Your task to perform on an android device: add a contact Image 0: 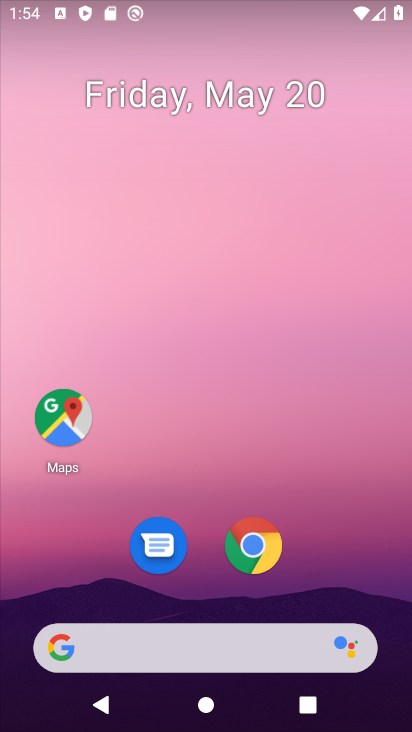
Step 0: drag from (185, 617) to (233, 5)
Your task to perform on an android device: add a contact Image 1: 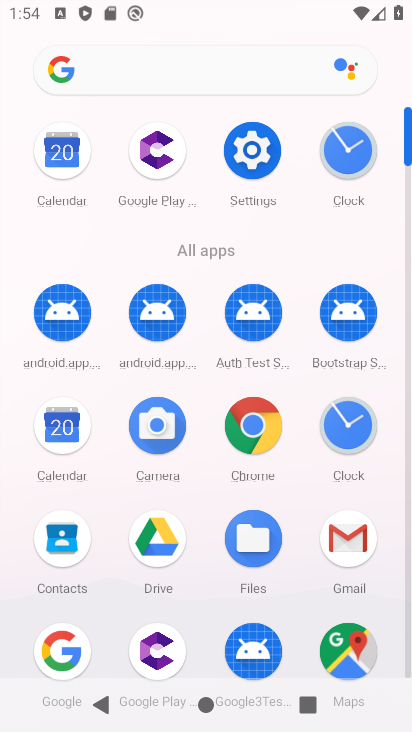
Step 1: click (60, 537)
Your task to perform on an android device: add a contact Image 2: 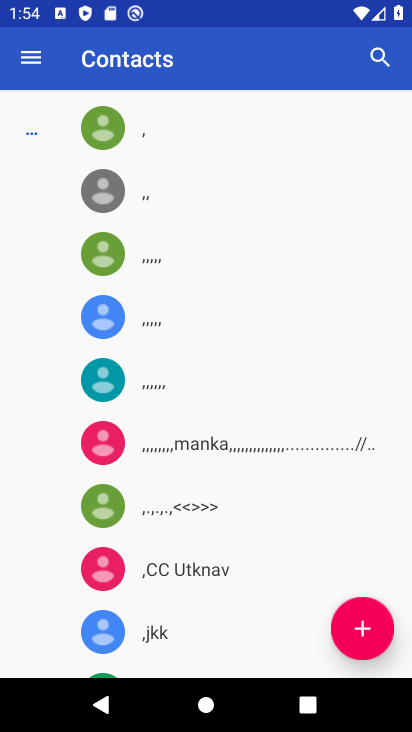
Step 2: click (356, 607)
Your task to perform on an android device: add a contact Image 3: 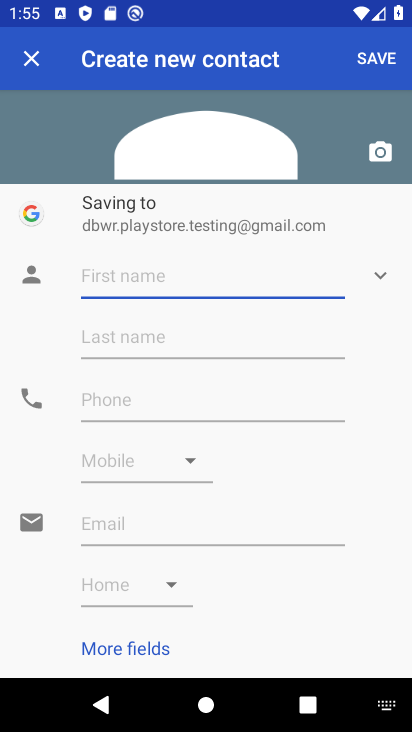
Step 3: type "hfjhhvjh"
Your task to perform on an android device: add a contact Image 4: 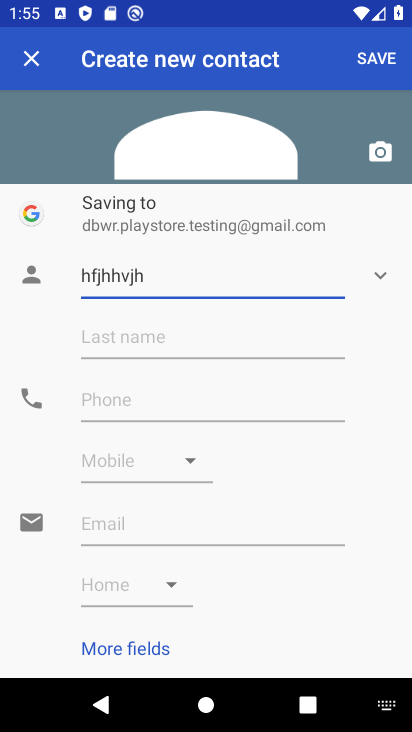
Step 4: click (243, 414)
Your task to perform on an android device: add a contact Image 5: 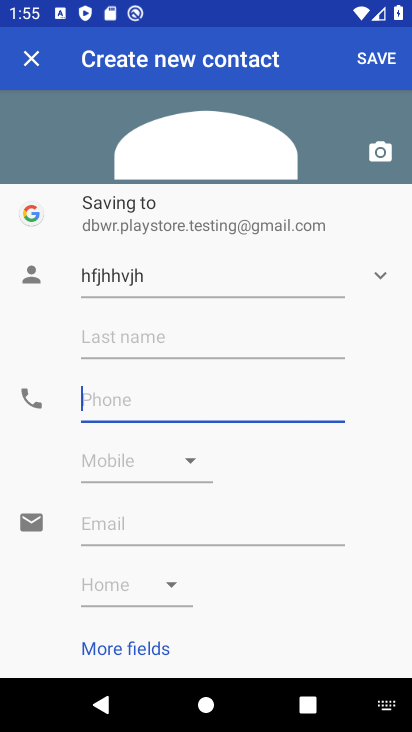
Step 5: type "9876789876"
Your task to perform on an android device: add a contact Image 6: 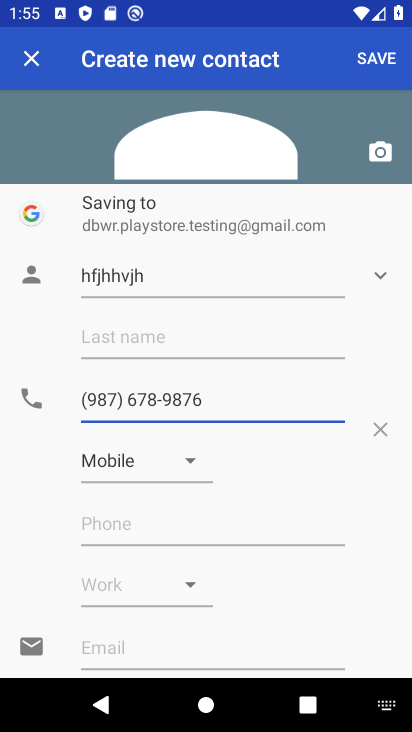
Step 6: click (375, 61)
Your task to perform on an android device: add a contact Image 7: 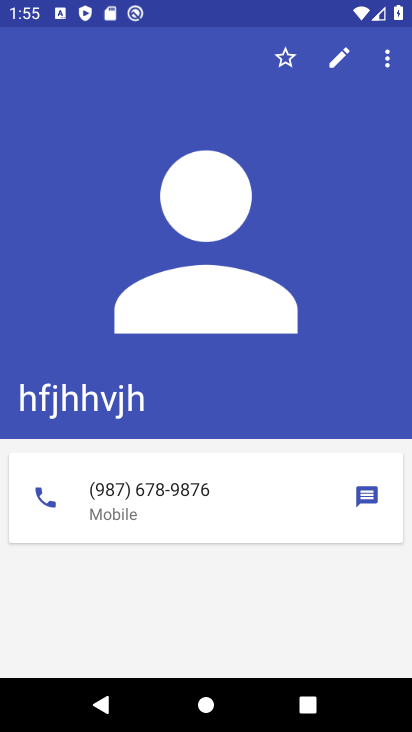
Step 7: task complete